Your task to perform on an android device: remove spam from my inbox in the gmail app Image 0: 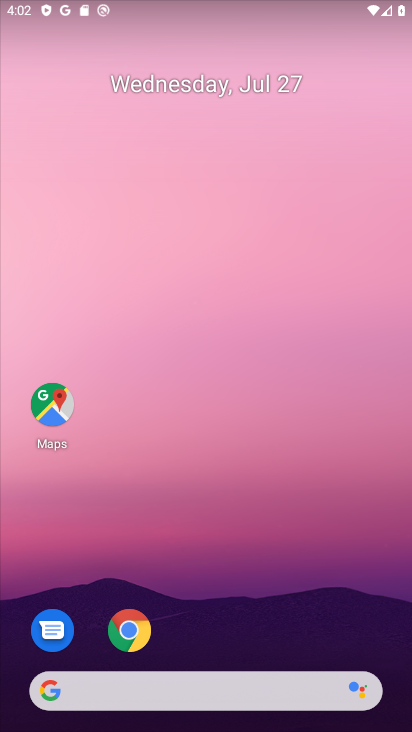
Step 0: drag from (245, 627) to (341, 0)
Your task to perform on an android device: remove spam from my inbox in the gmail app Image 1: 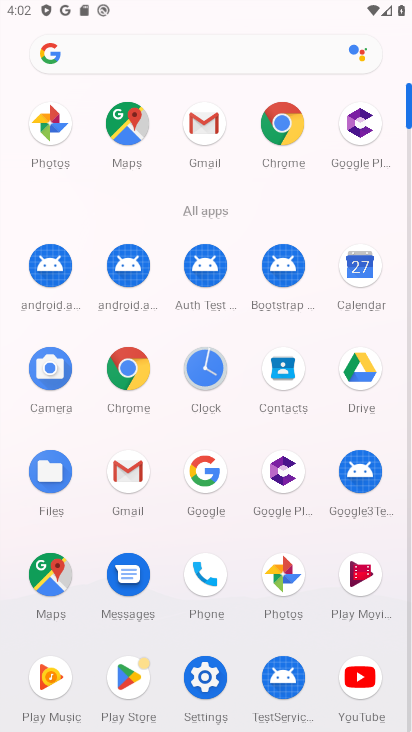
Step 1: click (124, 482)
Your task to perform on an android device: remove spam from my inbox in the gmail app Image 2: 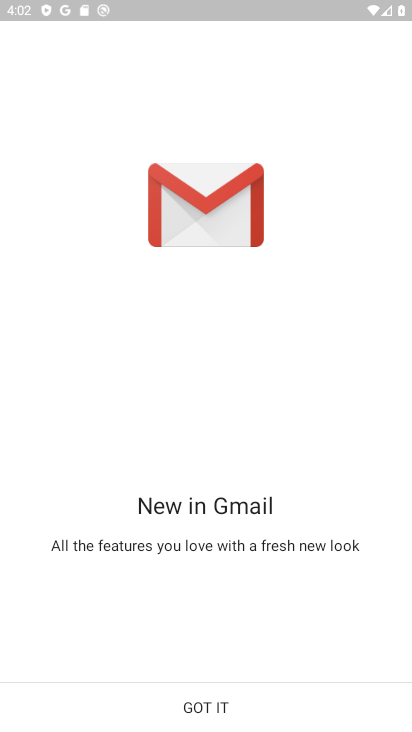
Step 2: click (214, 707)
Your task to perform on an android device: remove spam from my inbox in the gmail app Image 3: 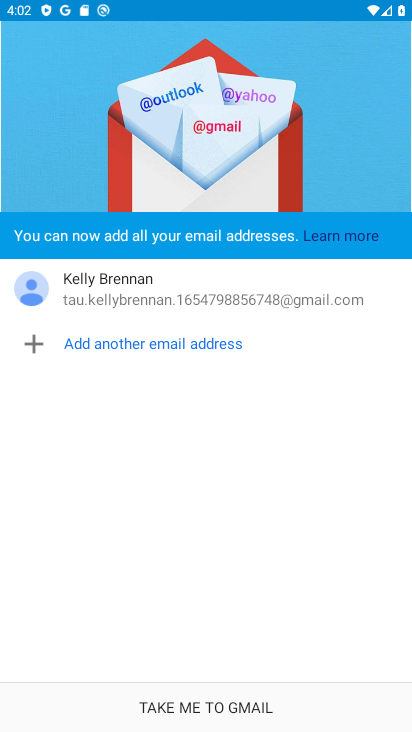
Step 3: click (214, 707)
Your task to perform on an android device: remove spam from my inbox in the gmail app Image 4: 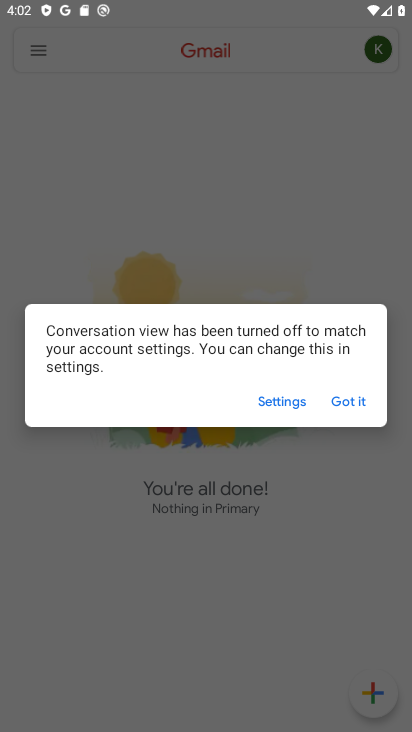
Step 4: click (337, 398)
Your task to perform on an android device: remove spam from my inbox in the gmail app Image 5: 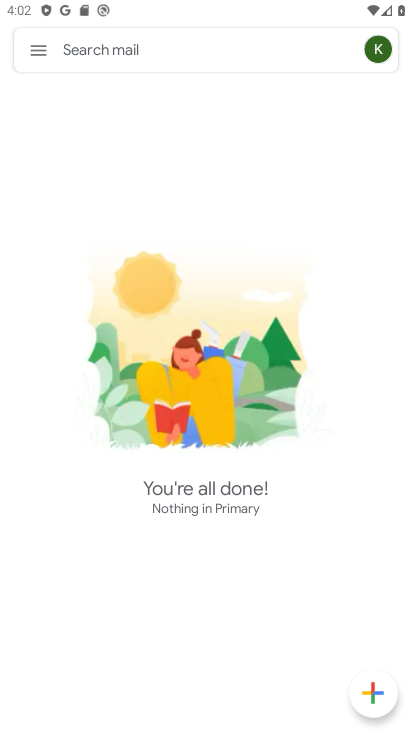
Step 5: click (41, 50)
Your task to perform on an android device: remove spam from my inbox in the gmail app Image 6: 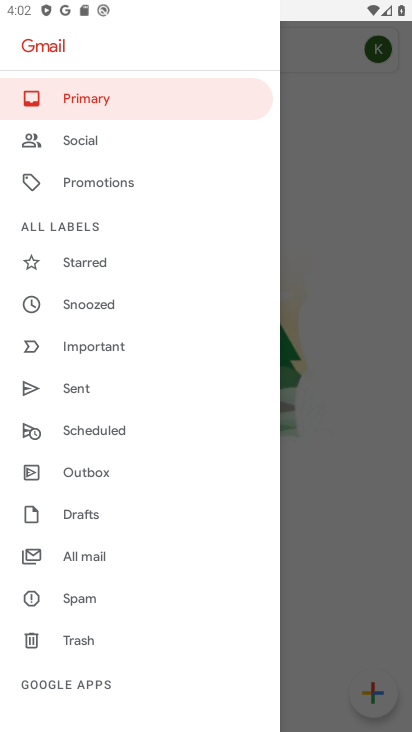
Step 6: click (89, 597)
Your task to perform on an android device: remove spam from my inbox in the gmail app Image 7: 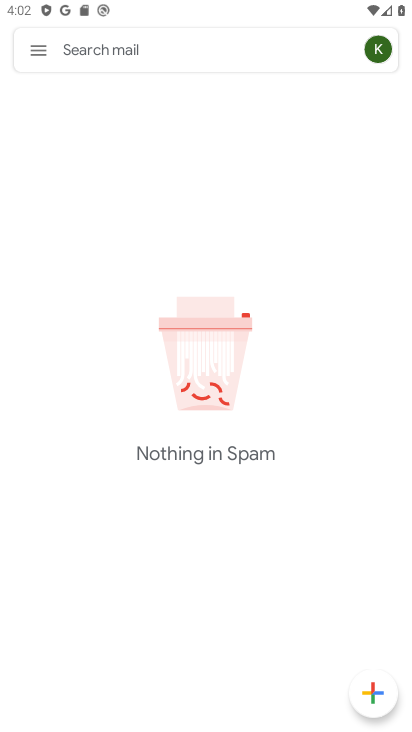
Step 7: task complete